Your task to perform on an android device: read, delete, or share a saved page in the chrome app Image 0: 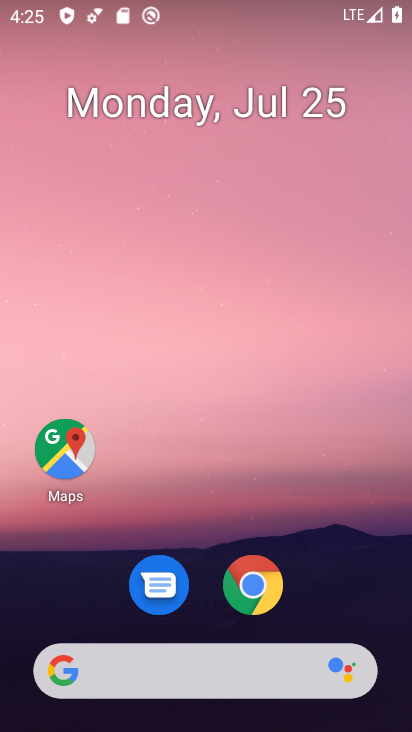
Step 0: drag from (256, 504) to (261, 435)
Your task to perform on an android device: read, delete, or share a saved page in the chrome app Image 1: 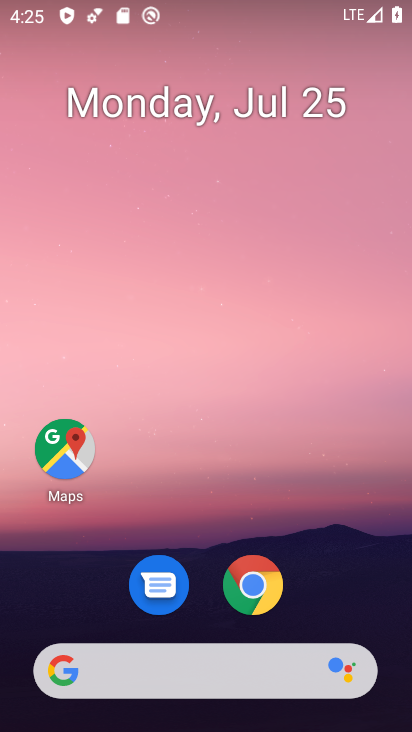
Step 1: click (244, 588)
Your task to perform on an android device: read, delete, or share a saved page in the chrome app Image 2: 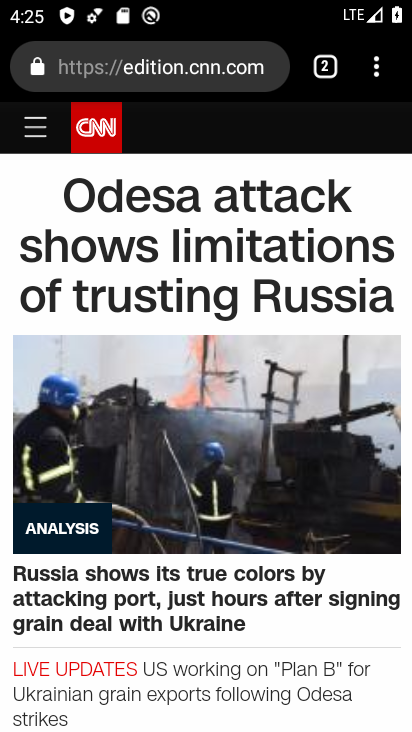
Step 2: click (378, 65)
Your task to perform on an android device: read, delete, or share a saved page in the chrome app Image 3: 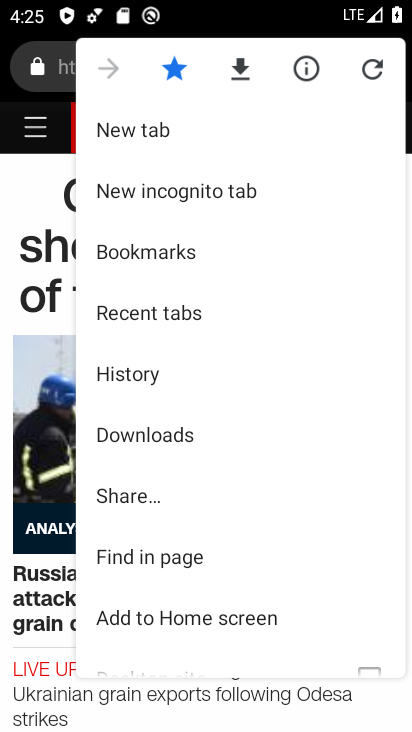
Step 3: click (190, 436)
Your task to perform on an android device: read, delete, or share a saved page in the chrome app Image 4: 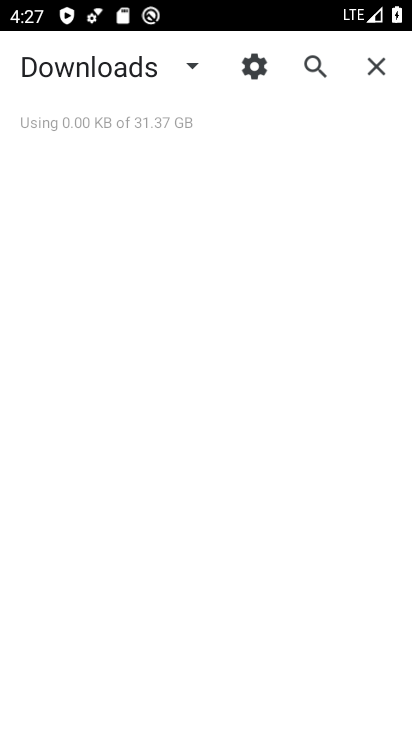
Step 4: task complete